Your task to perform on an android device: Open Maps and search for coffee Image 0: 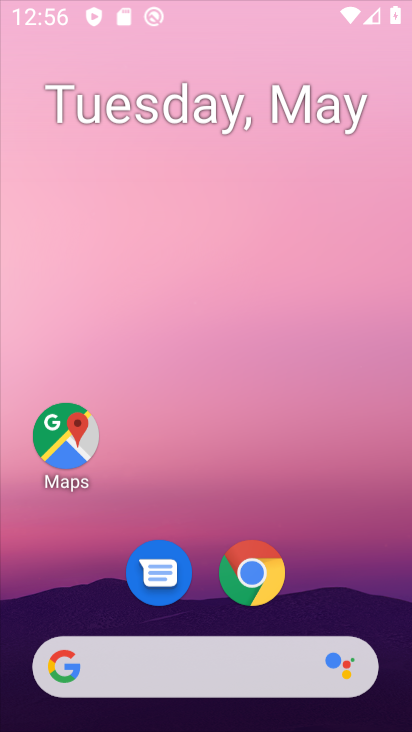
Step 0: click (273, 573)
Your task to perform on an android device: Open Maps and search for coffee Image 1: 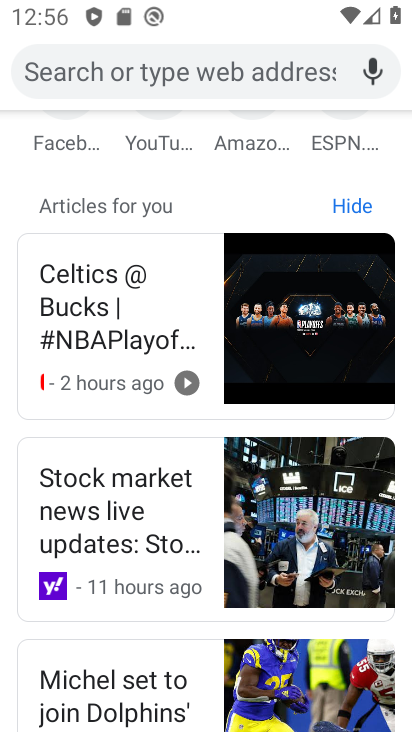
Step 1: press home button
Your task to perform on an android device: Open Maps and search for coffee Image 2: 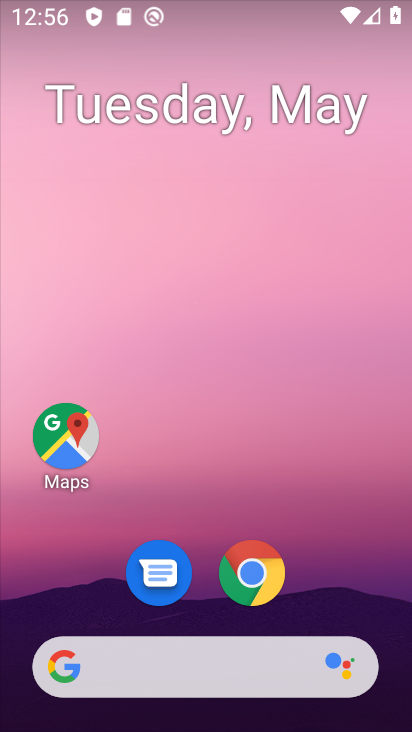
Step 2: drag from (321, 513) to (193, 9)
Your task to perform on an android device: Open Maps and search for coffee Image 3: 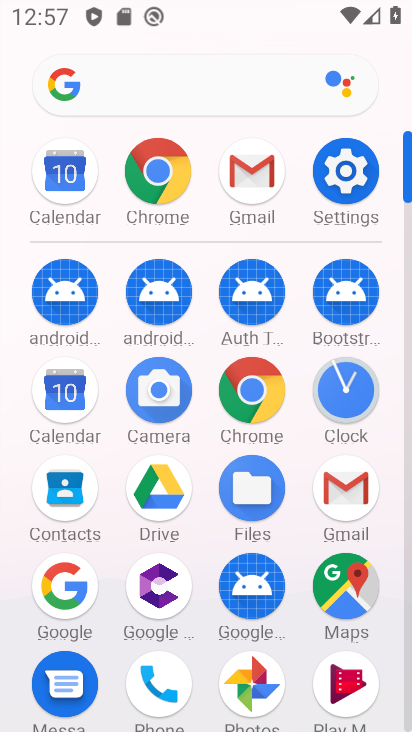
Step 3: click (340, 576)
Your task to perform on an android device: Open Maps and search for coffee Image 4: 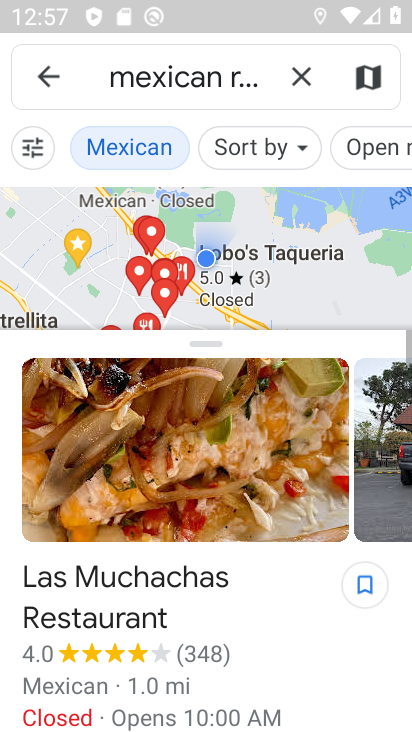
Step 4: click (287, 71)
Your task to perform on an android device: Open Maps and search for coffee Image 5: 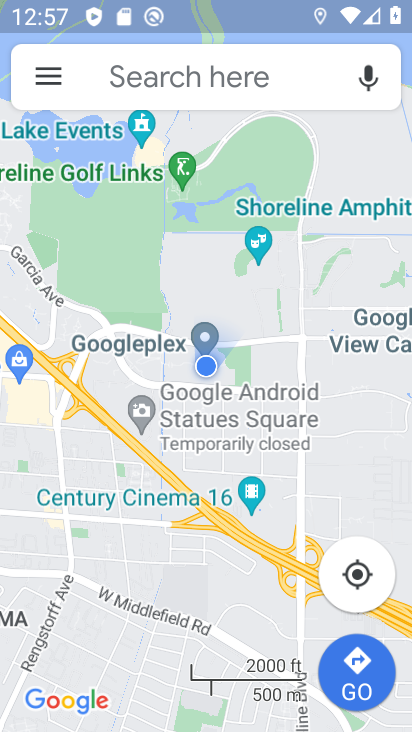
Step 5: click (139, 68)
Your task to perform on an android device: Open Maps and search for coffee Image 6: 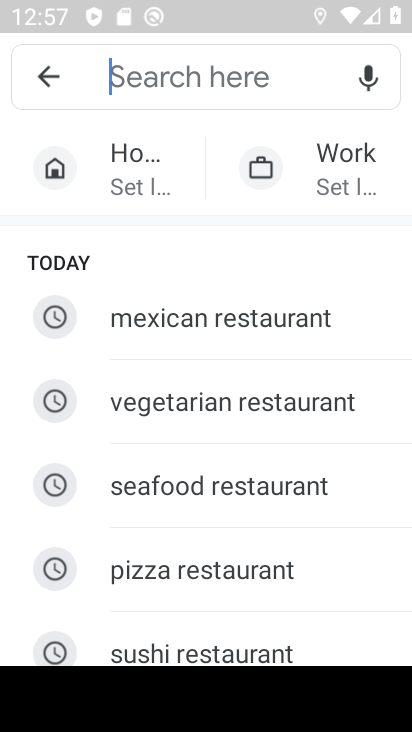
Step 6: drag from (311, 503) to (301, 256)
Your task to perform on an android device: Open Maps and search for coffee Image 7: 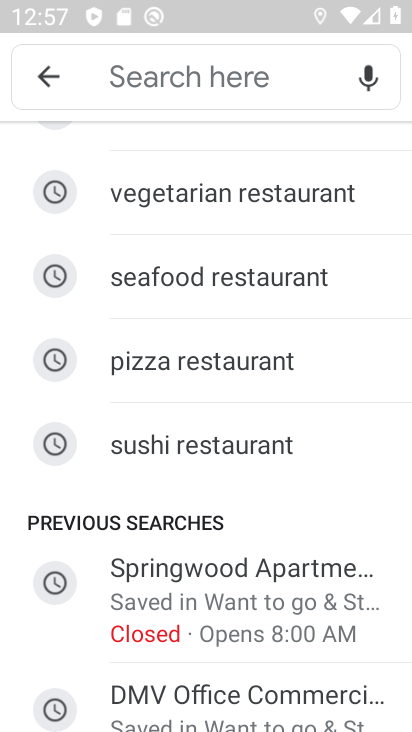
Step 7: click (223, 86)
Your task to perform on an android device: Open Maps and search for coffee Image 8: 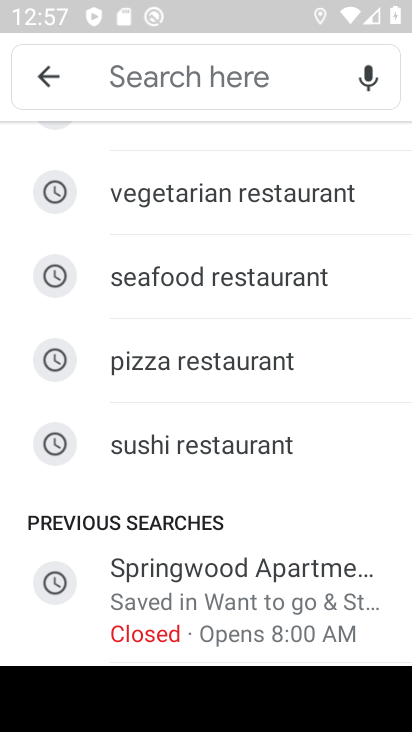
Step 8: type "coffee"
Your task to perform on an android device: Open Maps and search for coffee Image 9: 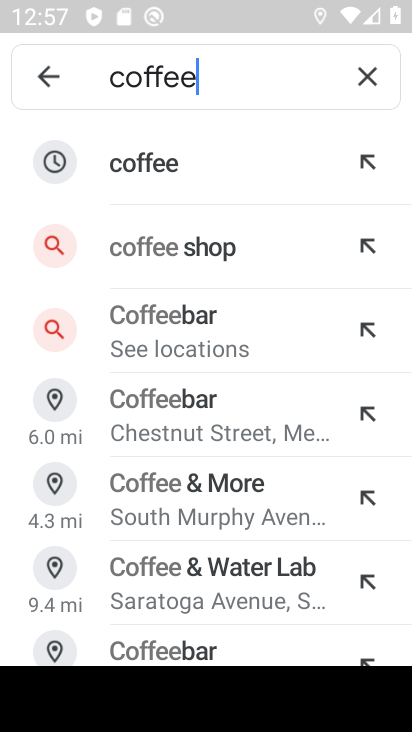
Step 9: click (168, 151)
Your task to perform on an android device: Open Maps and search for coffee Image 10: 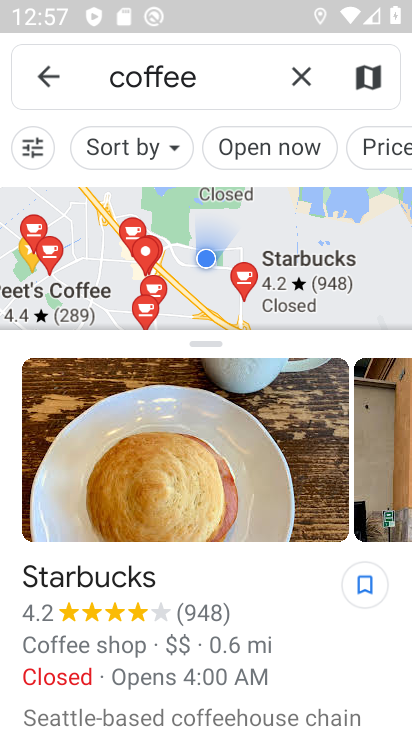
Step 10: task complete